Your task to perform on an android device: turn on notifications settings in the gmail app Image 0: 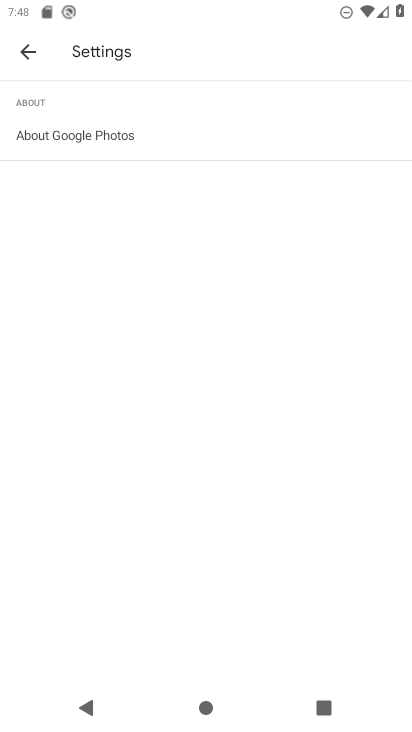
Step 0: press back button
Your task to perform on an android device: turn on notifications settings in the gmail app Image 1: 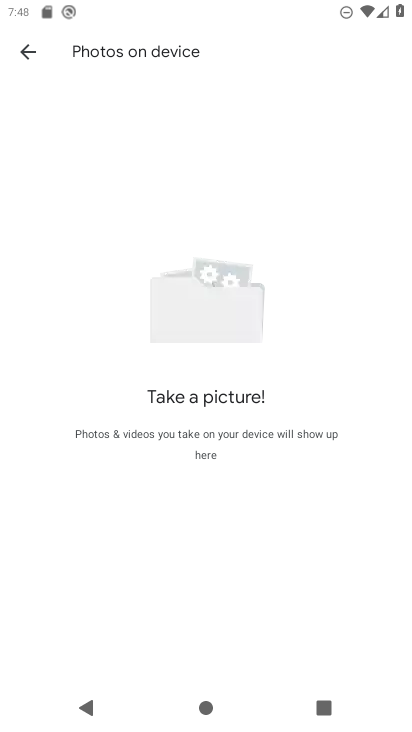
Step 1: press back button
Your task to perform on an android device: turn on notifications settings in the gmail app Image 2: 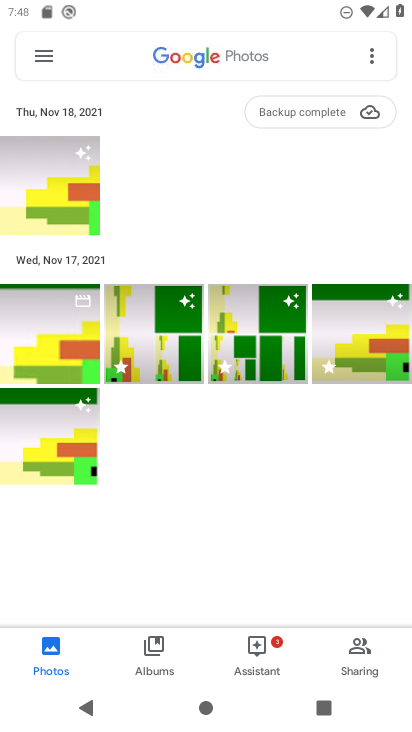
Step 2: press back button
Your task to perform on an android device: turn on notifications settings in the gmail app Image 3: 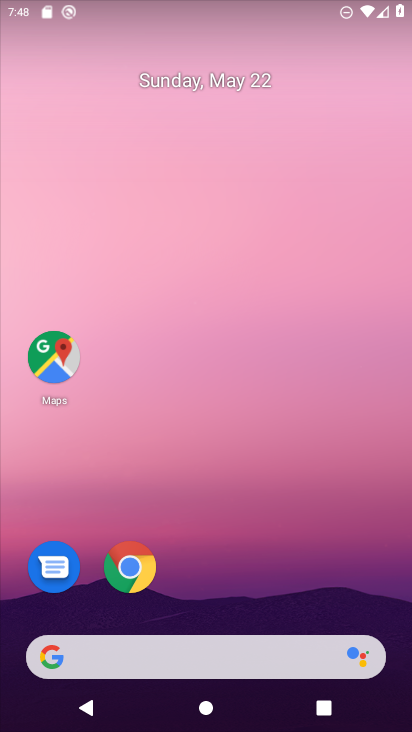
Step 3: drag from (184, 620) to (359, 54)
Your task to perform on an android device: turn on notifications settings in the gmail app Image 4: 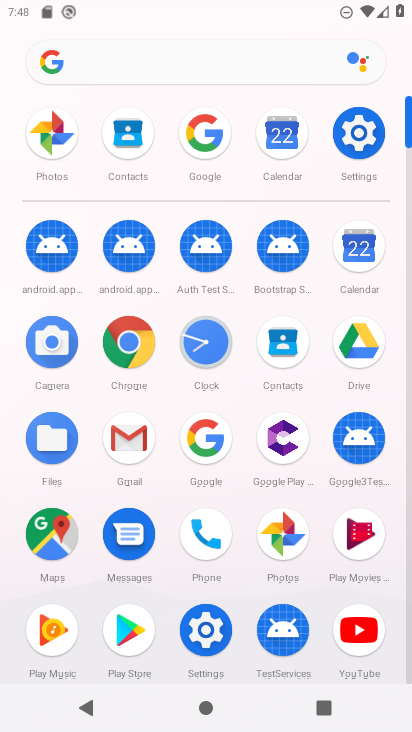
Step 4: click (128, 439)
Your task to perform on an android device: turn on notifications settings in the gmail app Image 5: 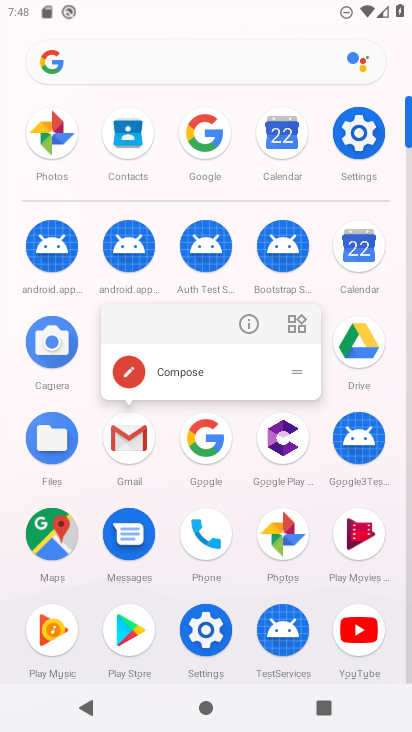
Step 5: click (253, 319)
Your task to perform on an android device: turn on notifications settings in the gmail app Image 6: 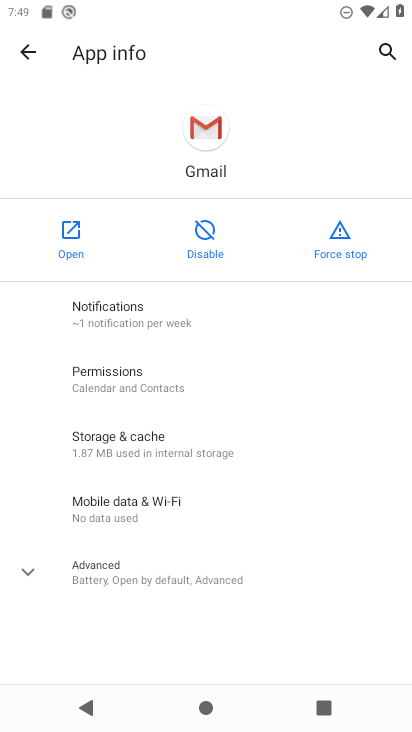
Step 6: click (129, 321)
Your task to perform on an android device: turn on notifications settings in the gmail app Image 7: 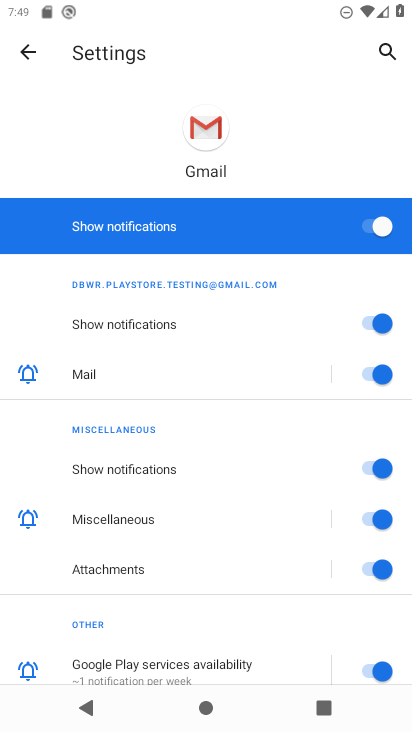
Step 7: task complete